Your task to perform on an android device: Open notification settings Image 0: 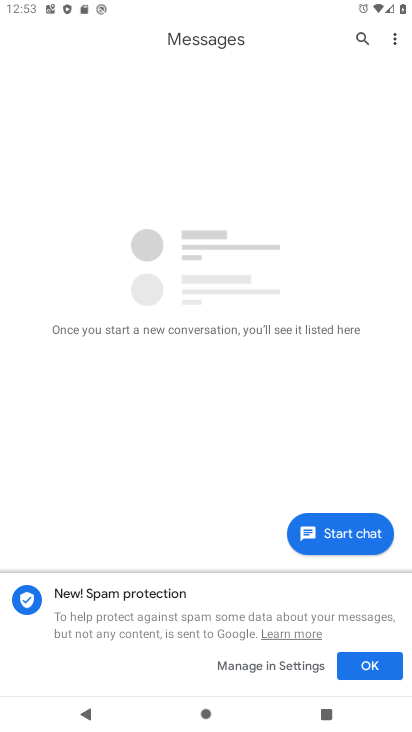
Step 0: press back button
Your task to perform on an android device: Open notification settings Image 1: 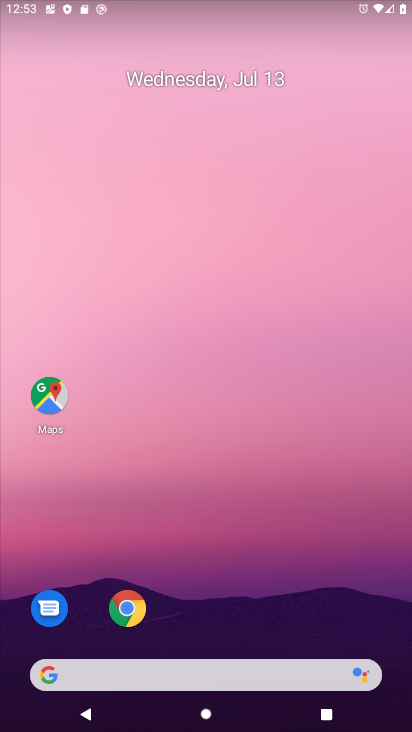
Step 1: drag from (227, 647) to (226, 60)
Your task to perform on an android device: Open notification settings Image 2: 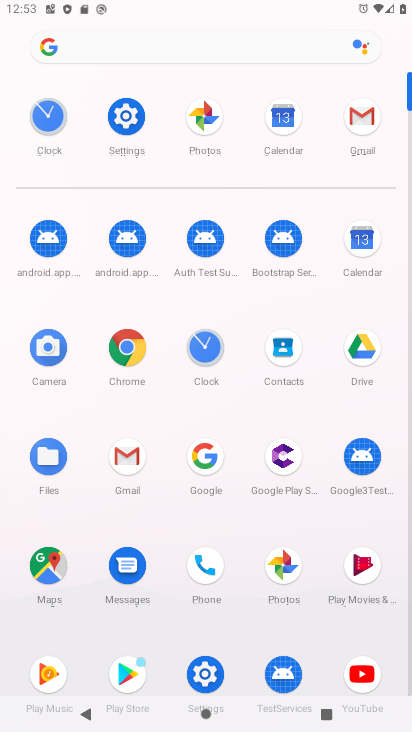
Step 2: click (151, 120)
Your task to perform on an android device: Open notification settings Image 3: 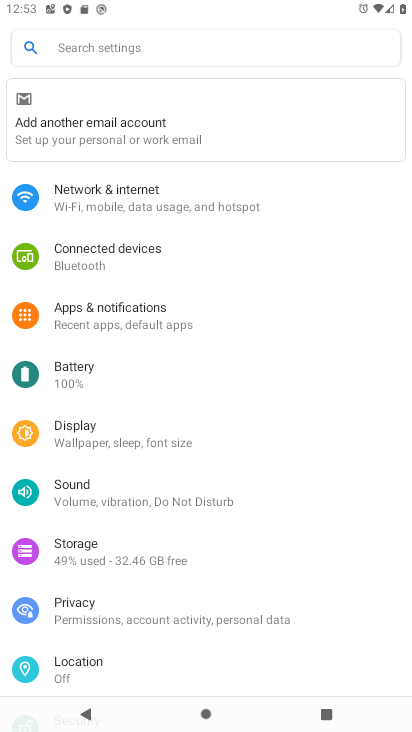
Step 3: click (128, 322)
Your task to perform on an android device: Open notification settings Image 4: 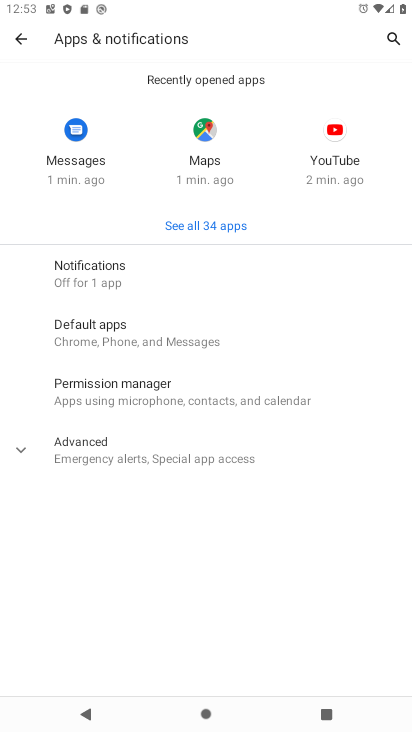
Step 4: click (130, 268)
Your task to perform on an android device: Open notification settings Image 5: 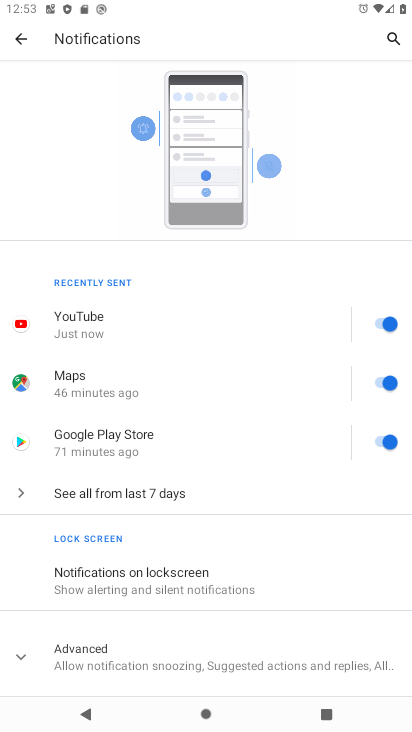
Step 5: task complete